Your task to perform on an android device: open device folders in google photos Image 0: 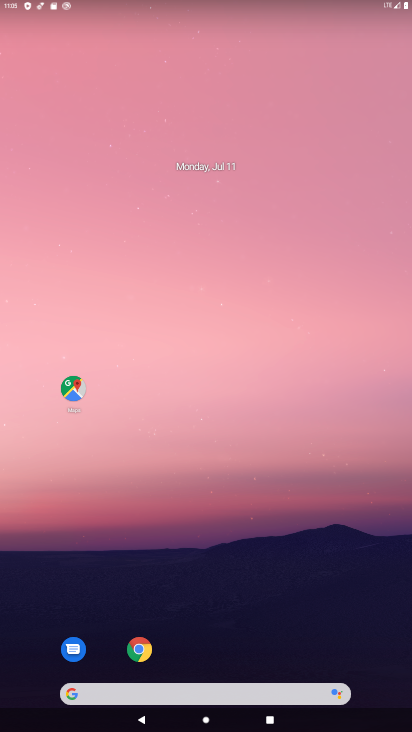
Step 0: drag from (315, 580) to (288, 111)
Your task to perform on an android device: open device folders in google photos Image 1: 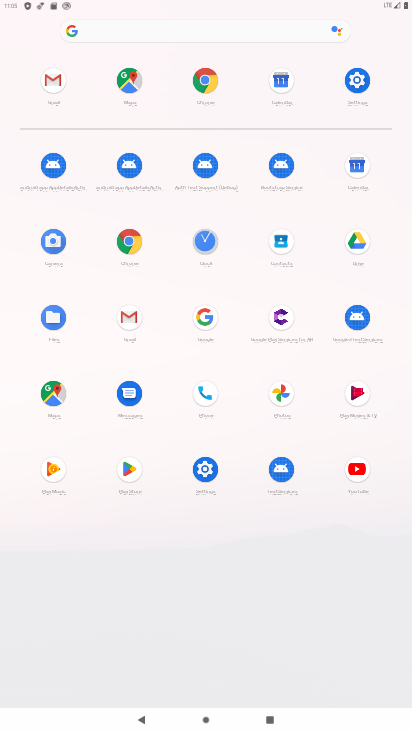
Step 1: click (286, 395)
Your task to perform on an android device: open device folders in google photos Image 2: 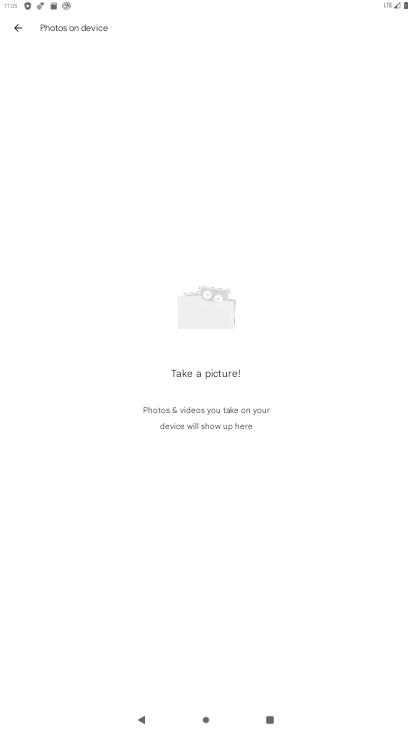
Step 2: task complete